Your task to perform on an android device: Go to display settings Image 0: 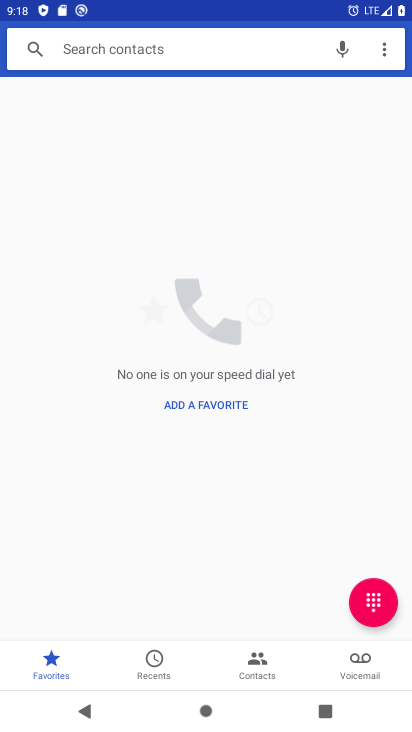
Step 0: press home button
Your task to perform on an android device: Go to display settings Image 1: 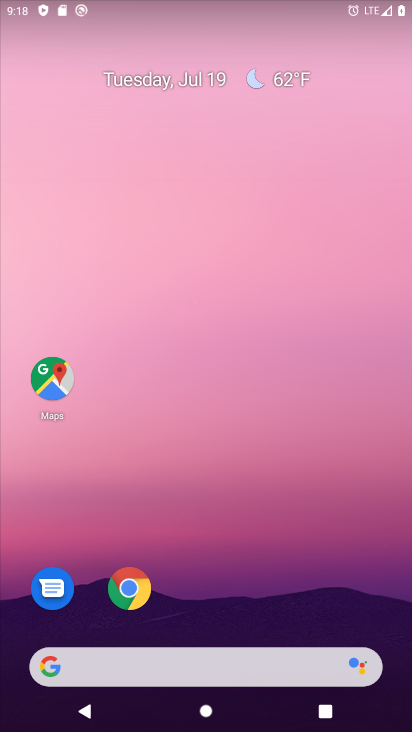
Step 1: drag from (277, 534) to (363, 1)
Your task to perform on an android device: Go to display settings Image 2: 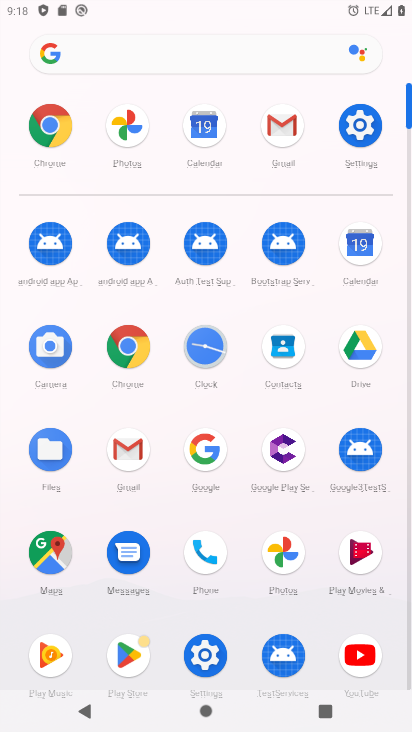
Step 2: click (366, 140)
Your task to perform on an android device: Go to display settings Image 3: 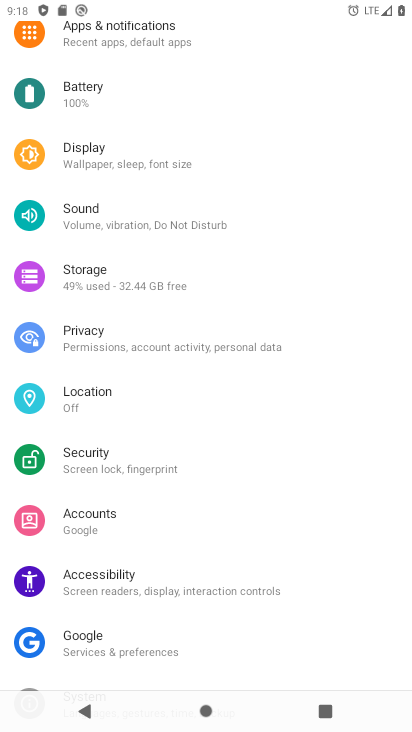
Step 3: click (126, 156)
Your task to perform on an android device: Go to display settings Image 4: 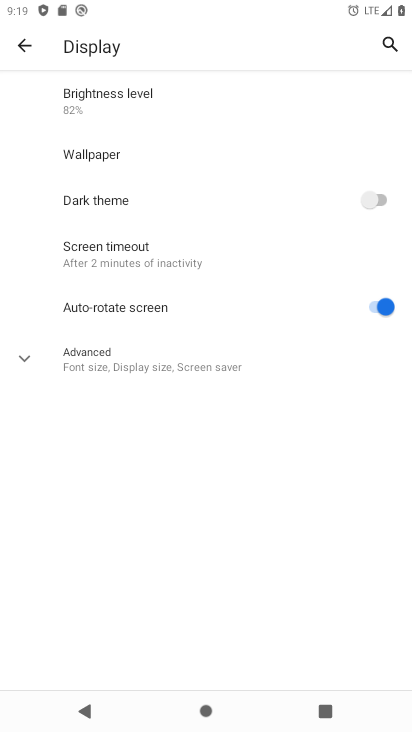
Step 4: task complete